Your task to perform on an android device: open device folders in google photos Image 0: 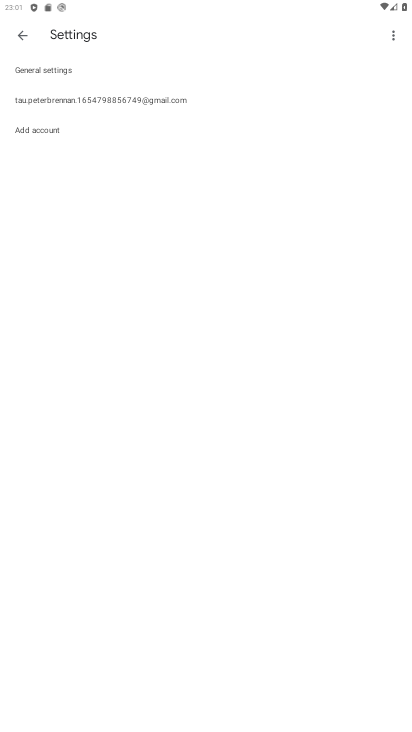
Step 0: press home button
Your task to perform on an android device: open device folders in google photos Image 1: 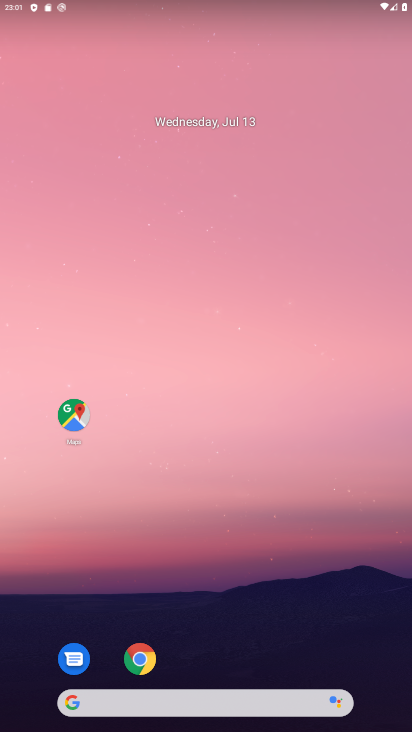
Step 1: drag from (364, 652) to (335, 30)
Your task to perform on an android device: open device folders in google photos Image 2: 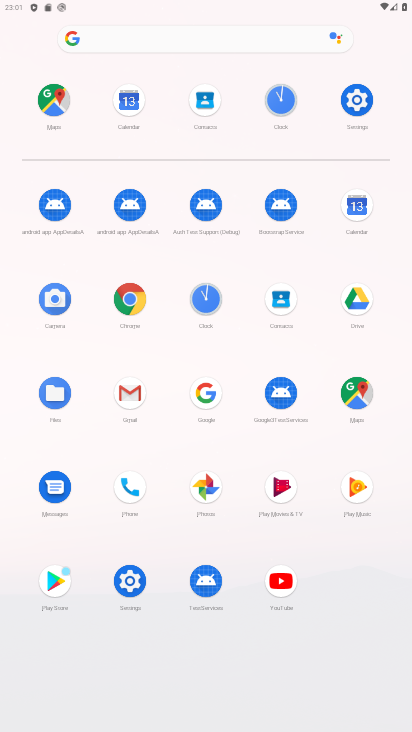
Step 2: click (203, 486)
Your task to perform on an android device: open device folders in google photos Image 3: 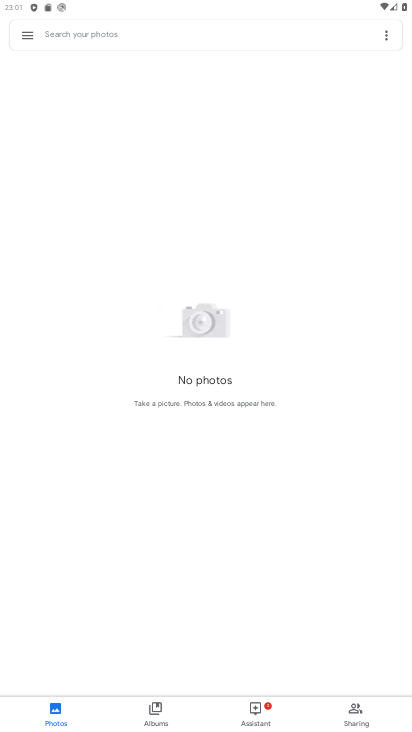
Step 3: click (23, 34)
Your task to perform on an android device: open device folders in google photos Image 4: 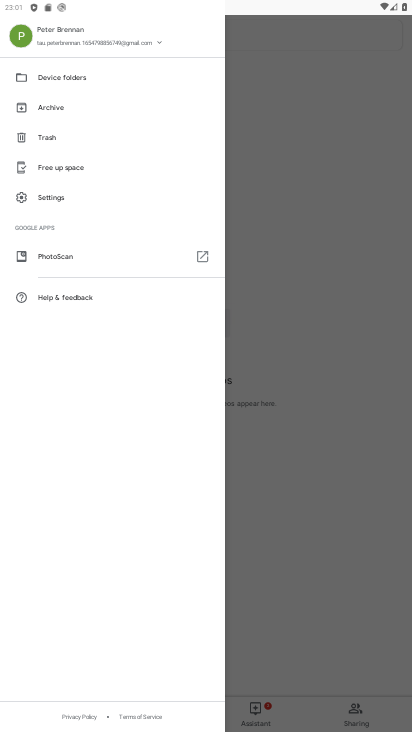
Step 4: click (68, 78)
Your task to perform on an android device: open device folders in google photos Image 5: 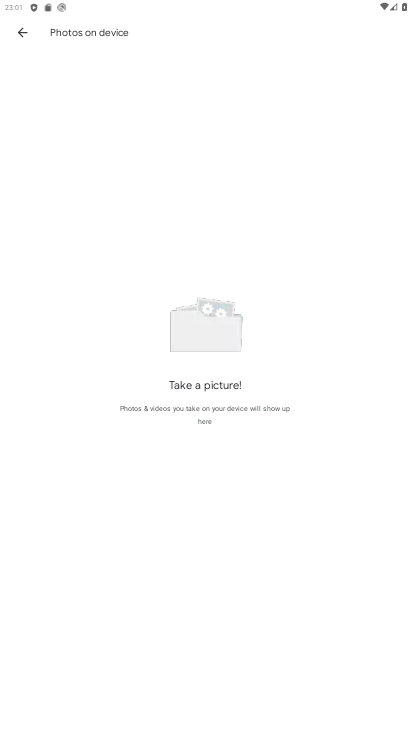
Step 5: task complete